Your task to perform on an android device: move a message to another label in the gmail app Image 0: 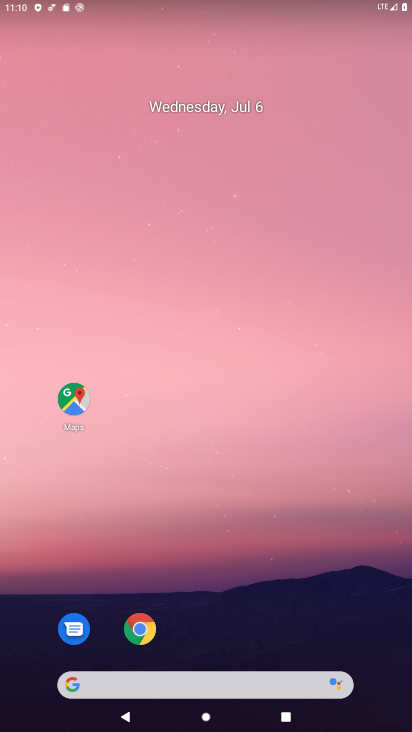
Step 0: drag from (200, 621) to (201, 189)
Your task to perform on an android device: move a message to another label in the gmail app Image 1: 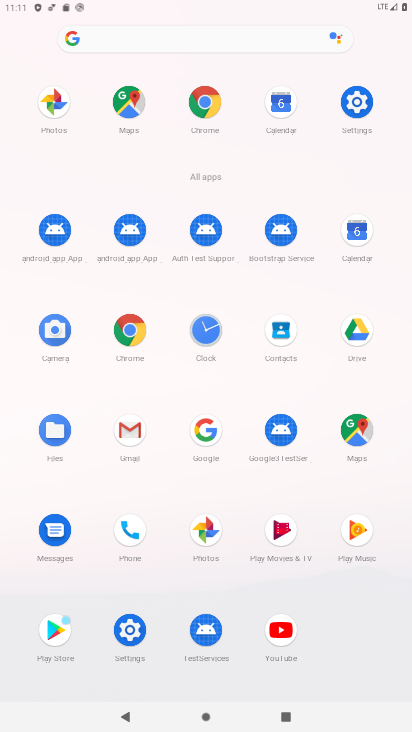
Step 1: click (131, 438)
Your task to perform on an android device: move a message to another label in the gmail app Image 2: 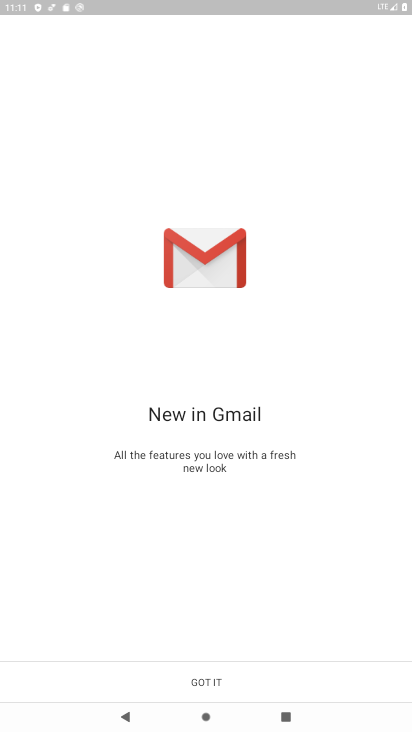
Step 2: click (228, 666)
Your task to perform on an android device: move a message to another label in the gmail app Image 3: 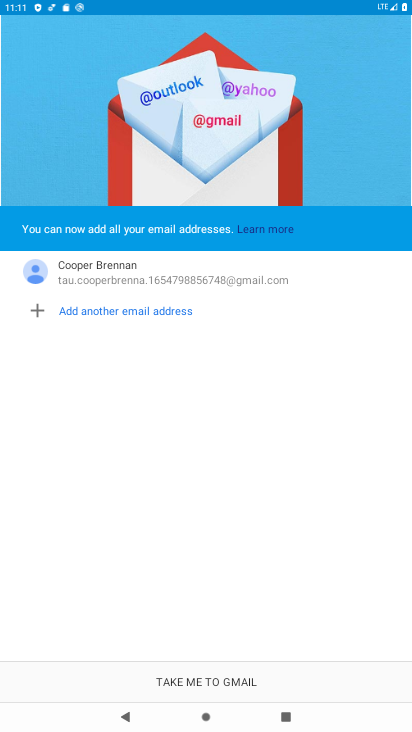
Step 3: click (226, 691)
Your task to perform on an android device: move a message to another label in the gmail app Image 4: 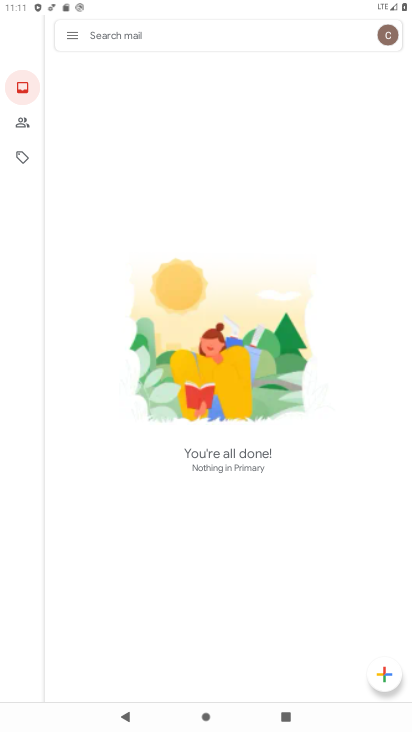
Step 4: click (69, 38)
Your task to perform on an android device: move a message to another label in the gmail app Image 5: 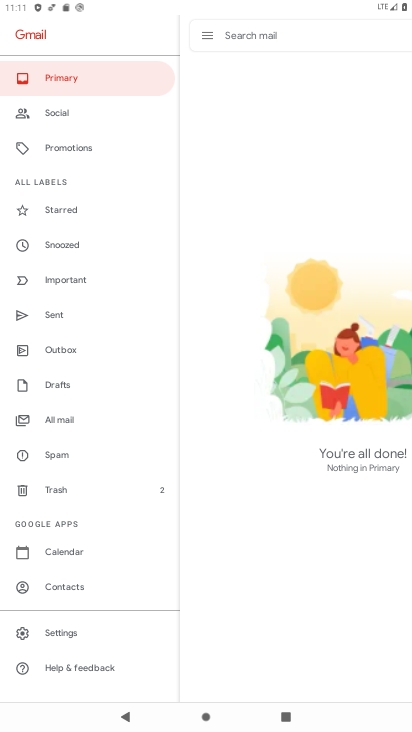
Step 5: click (80, 424)
Your task to perform on an android device: move a message to another label in the gmail app Image 6: 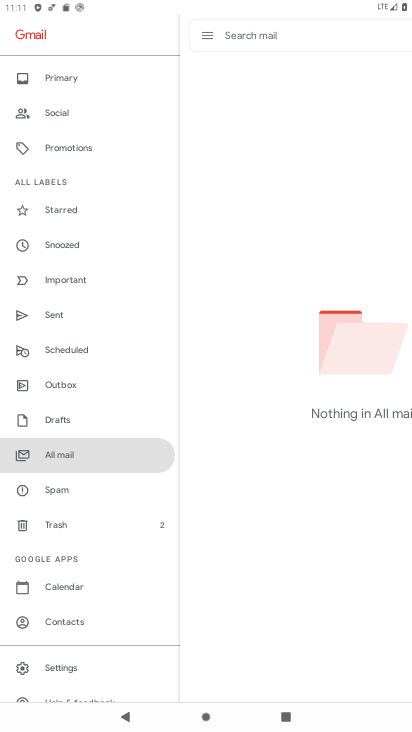
Step 6: task complete